Your task to perform on an android device: Find coffee shops on Maps Image 0: 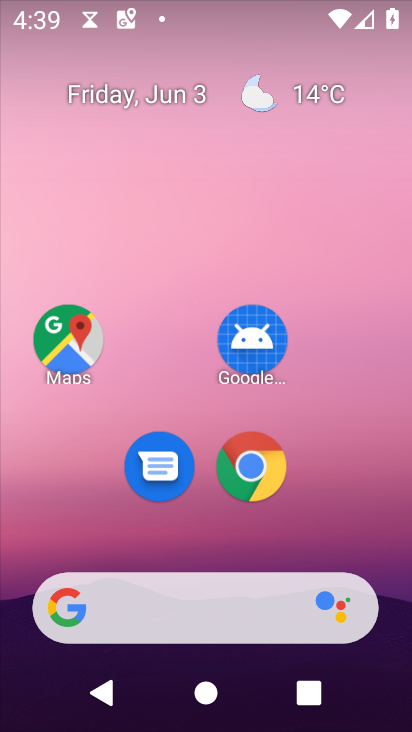
Step 0: click (84, 365)
Your task to perform on an android device: Find coffee shops on Maps Image 1: 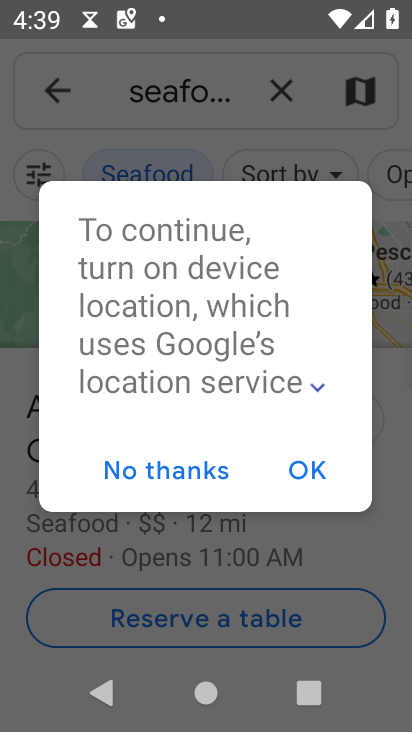
Step 1: click (204, 465)
Your task to perform on an android device: Find coffee shops on Maps Image 2: 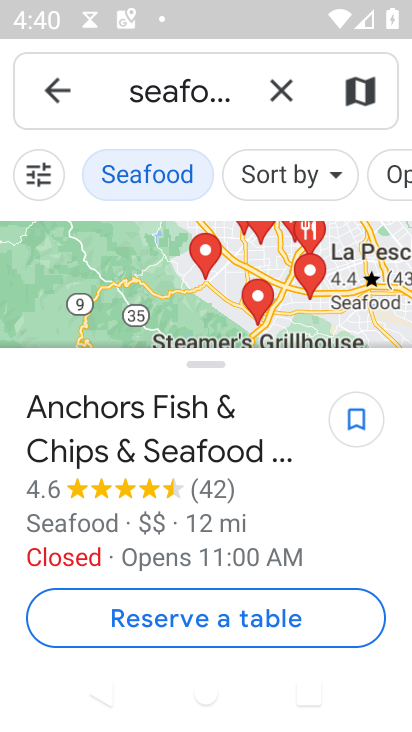
Step 2: click (281, 75)
Your task to perform on an android device: Find coffee shops on Maps Image 3: 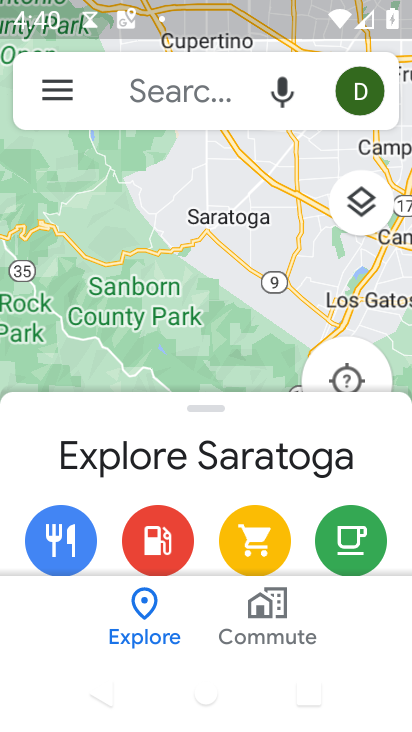
Step 3: click (190, 92)
Your task to perform on an android device: Find coffee shops on Maps Image 4: 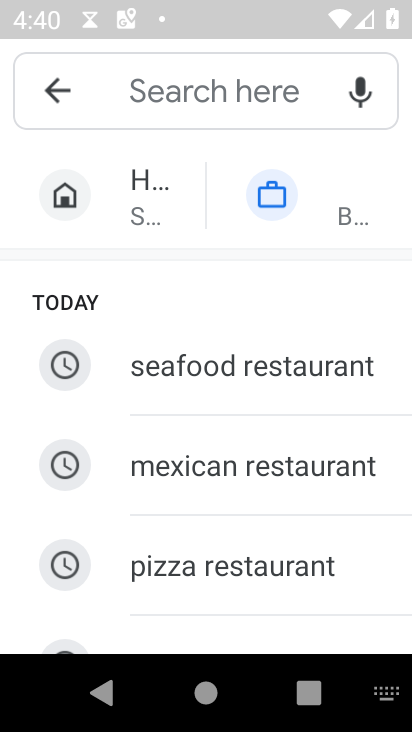
Step 4: drag from (216, 460) to (255, 180)
Your task to perform on an android device: Find coffee shops on Maps Image 5: 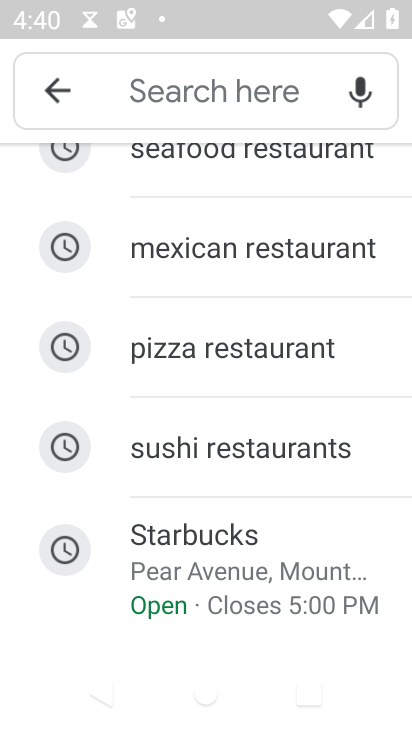
Step 5: click (173, 77)
Your task to perform on an android device: Find coffee shops on Maps Image 6: 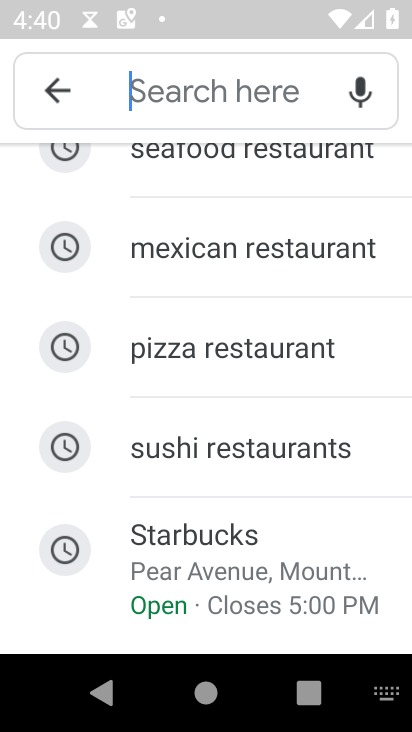
Step 6: type "coffee shops"
Your task to perform on an android device: Find coffee shops on Maps Image 7: 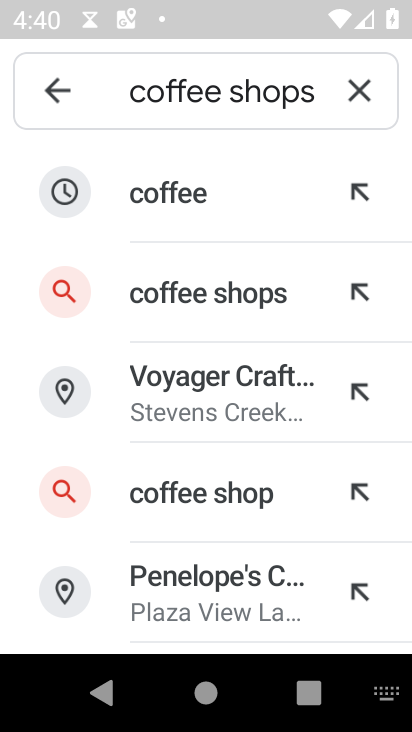
Step 7: click (249, 269)
Your task to perform on an android device: Find coffee shops on Maps Image 8: 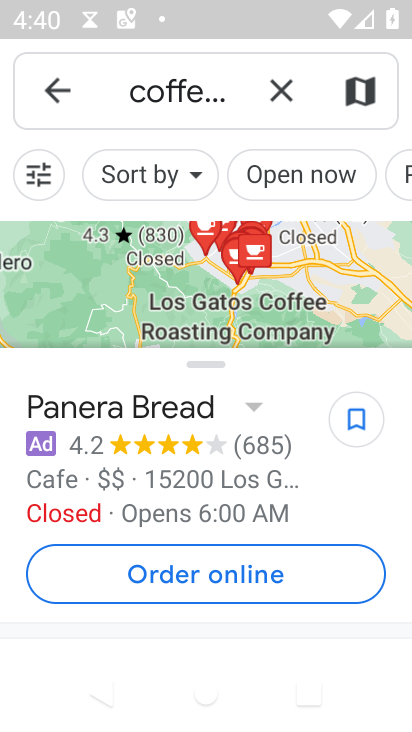
Step 8: task complete